Your task to perform on an android device: Open Chrome and go to settings Image 0: 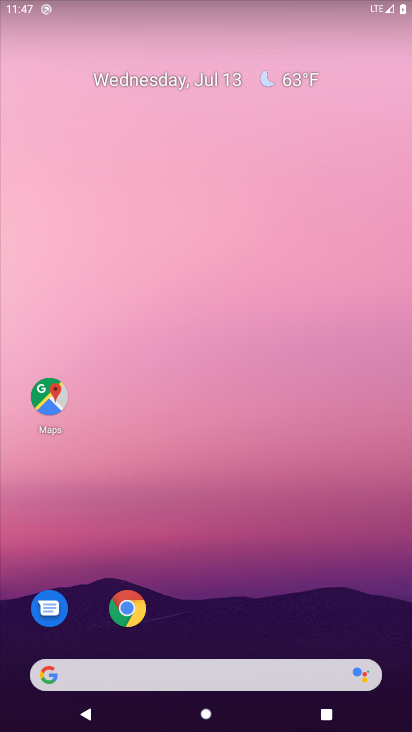
Step 0: press home button
Your task to perform on an android device: Open Chrome and go to settings Image 1: 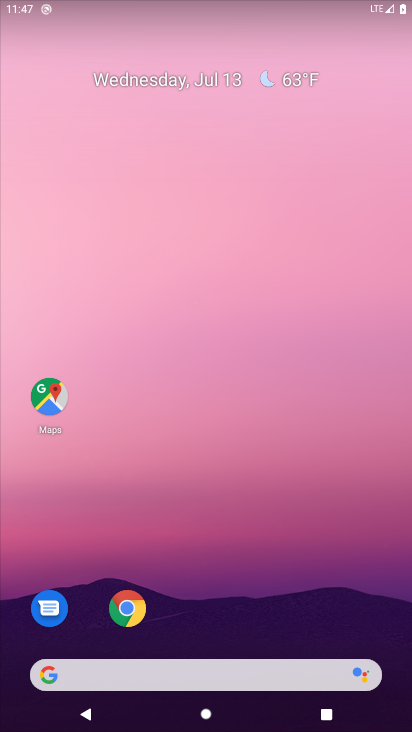
Step 1: click (127, 611)
Your task to perform on an android device: Open Chrome and go to settings Image 2: 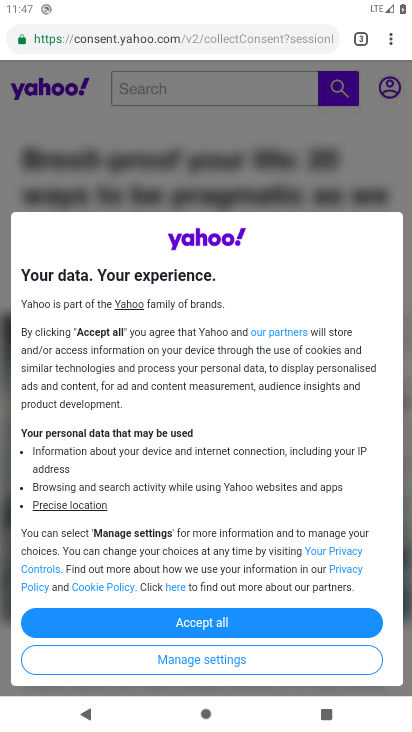
Step 2: task complete